Your task to perform on an android device: turn vacation reply on in the gmail app Image 0: 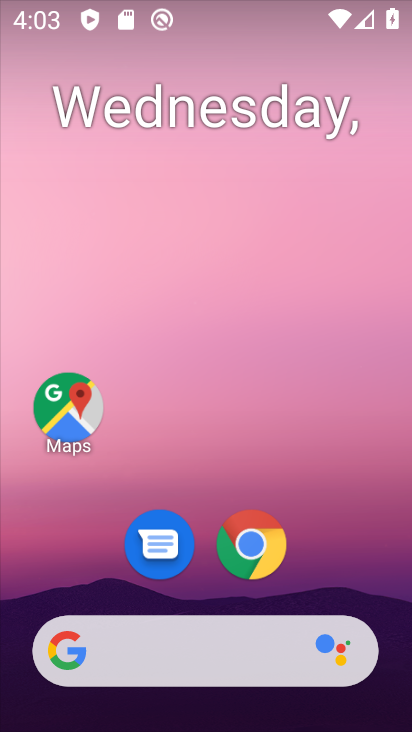
Step 0: drag from (101, 592) to (177, 168)
Your task to perform on an android device: turn vacation reply on in the gmail app Image 1: 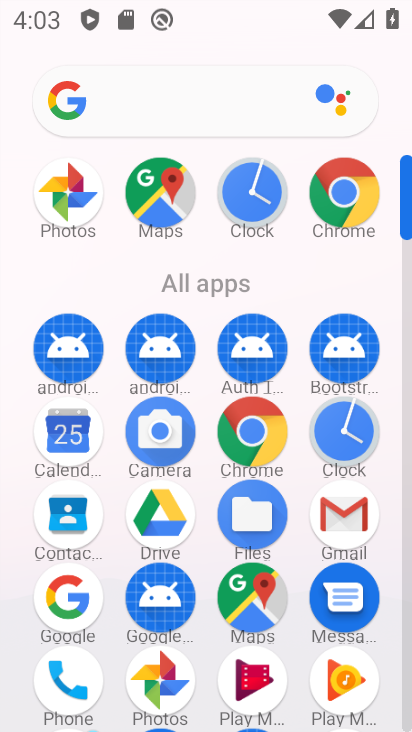
Step 1: click (363, 509)
Your task to perform on an android device: turn vacation reply on in the gmail app Image 2: 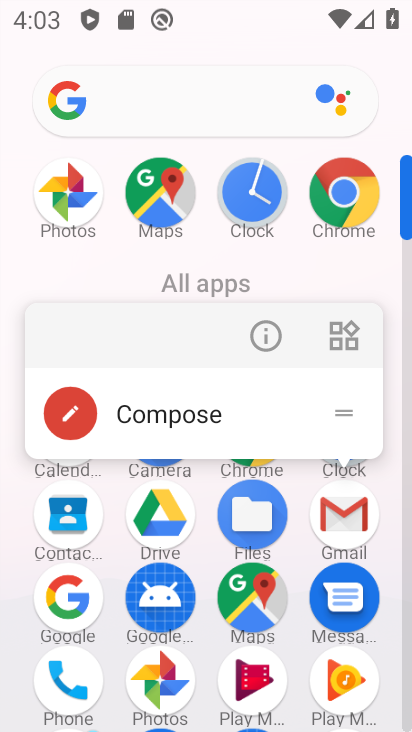
Step 2: click (357, 512)
Your task to perform on an android device: turn vacation reply on in the gmail app Image 3: 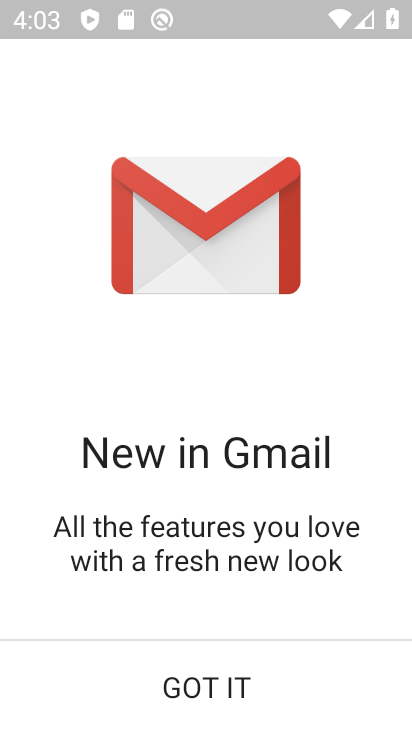
Step 3: click (195, 689)
Your task to perform on an android device: turn vacation reply on in the gmail app Image 4: 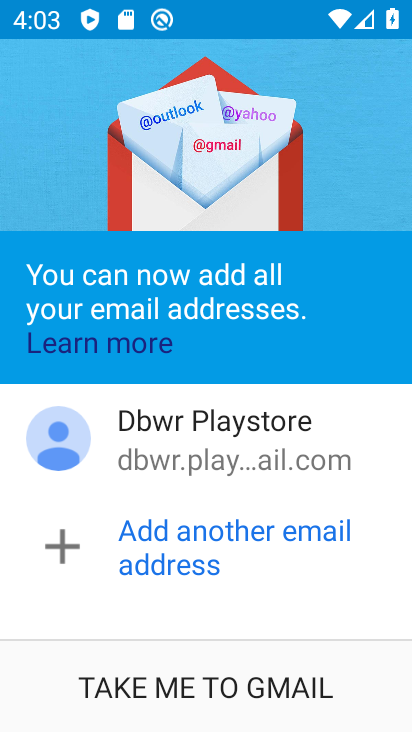
Step 4: click (206, 681)
Your task to perform on an android device: turn vacation reply on in the gmail app Image 5: 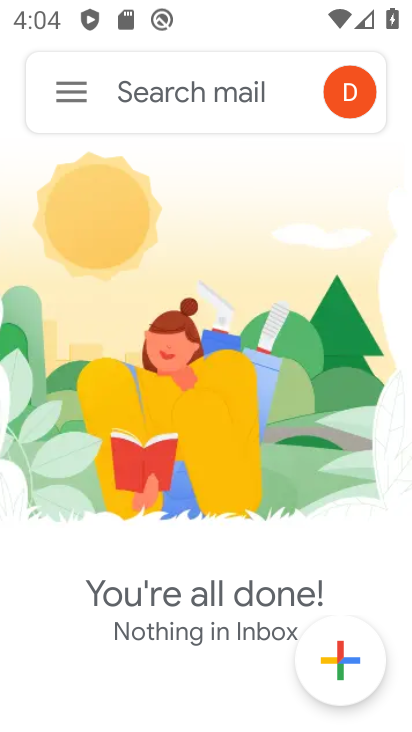
Step 5: click (77, 111)
Your task to perform on an android device: turn vacation reply on in the gmail app Image 6: 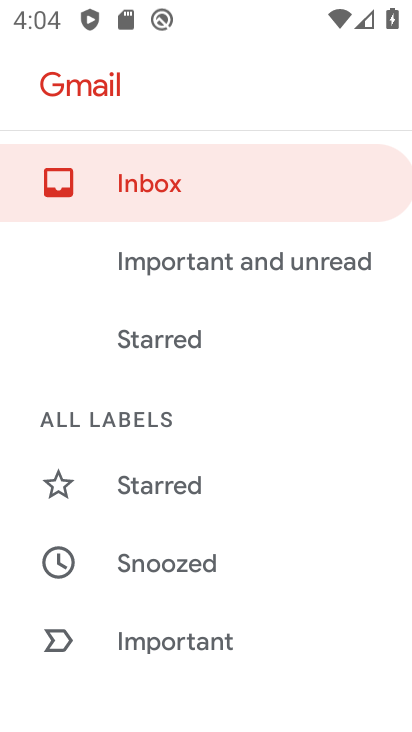
Step 6: drag from (125, 645) to (252, 137)
Your task to perform on an android device: turn vacation reply on in the gmail app Image 7: 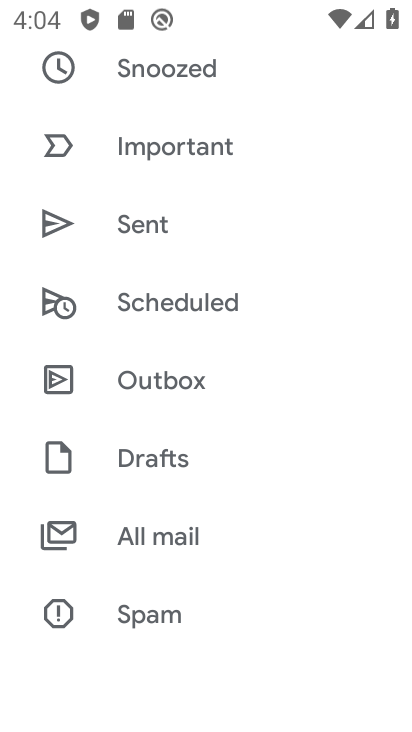
Step 7: drag from (207, 439) to (274, 279)
Your task to perform on an android device: turn vacation reply on in the gmail app Image 8: 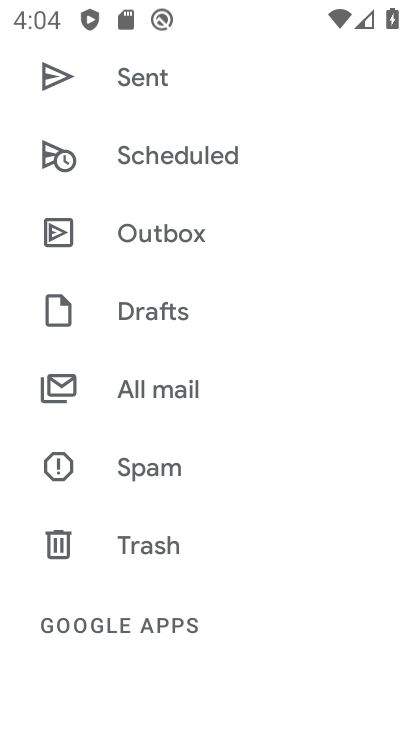
Step 8: drag from (183, 462) to (286, 163)
Your task to perform on an android device: turn vacation reply on in the gmail app Image 9: 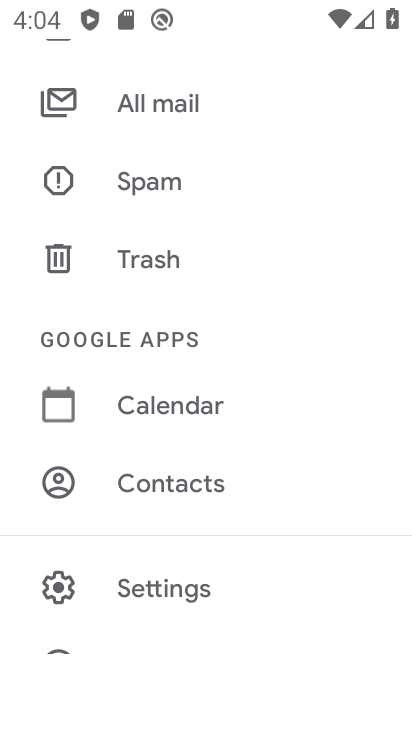
Step 9: click (177, 602)
Your task to perform on an android device: turn vacation reply on in the gmail app Image 10: 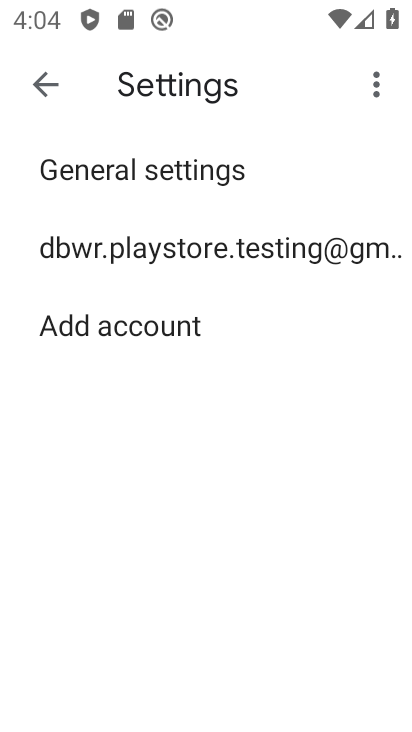
Step 10: click (202, 259)
Your task to perform on an android device: turn vacation reply on in the gmail app Image 11: 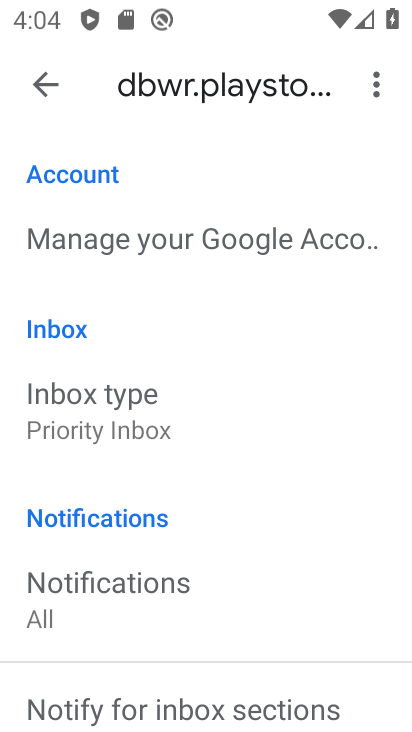
Step 11: drag from (137, 623) to (324, 148)
Your task to perform on an android device: turn vacation reply on in the gmail app Image 12: 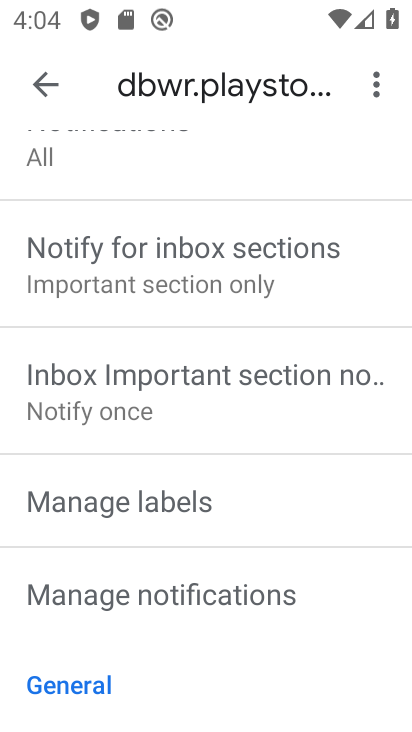
Step 12: drag from (194, 500) to (281, 44)
Your task to perform on an android device: turn vacation reply on in the gmail app Image 13: 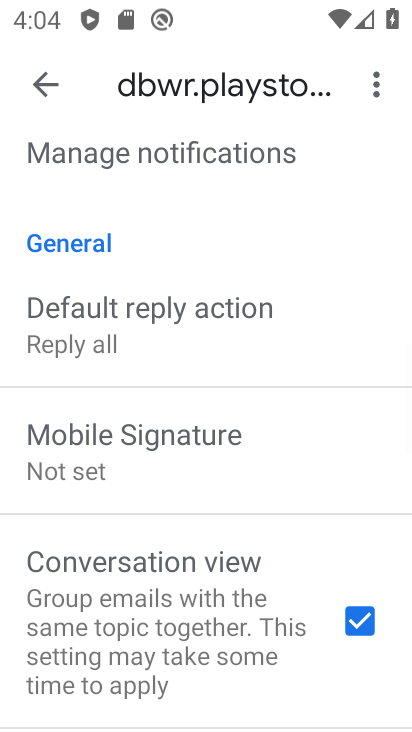
Step 13: drag from (174, 601) to (260, 223)
Your task to perform on an android device: turn vacation reply on in the gmail app Image 14: 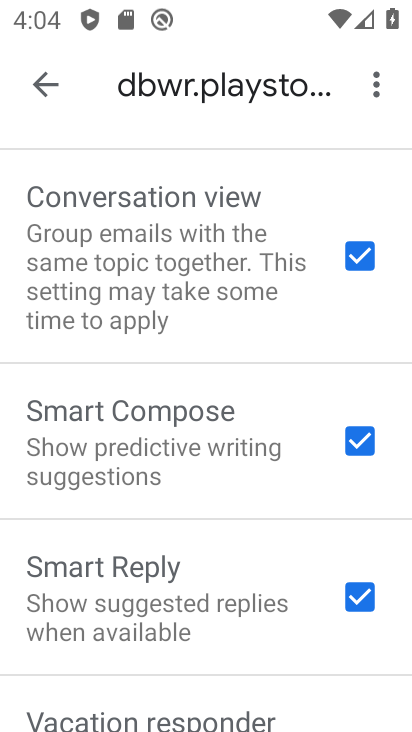
Step 14: drag from (178, 598) to (280, 277)
Your task to perform on an android device: turn vacation reply on in the gmail app Image 15: 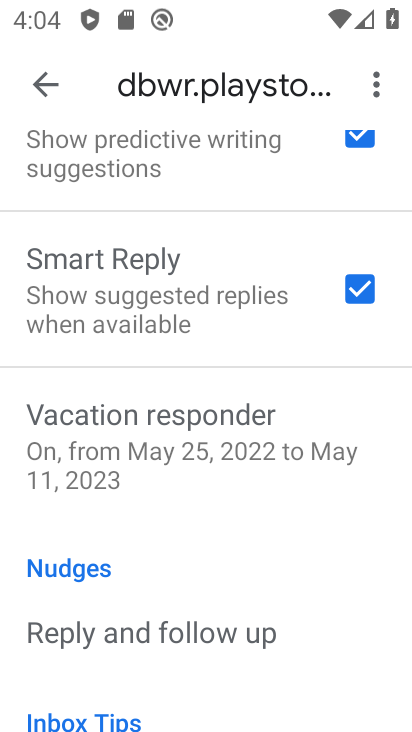
Step 15: click (194, 436)
Your task to perform on an android device: turn vacation reply on in the gmail app Image 16: 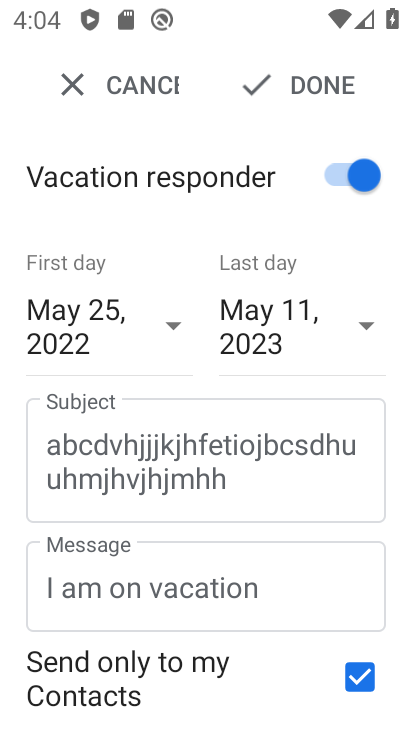
Step 16: task complete